Your task to perform on an android device: delete the emails in spam in the gmail app Image 0: 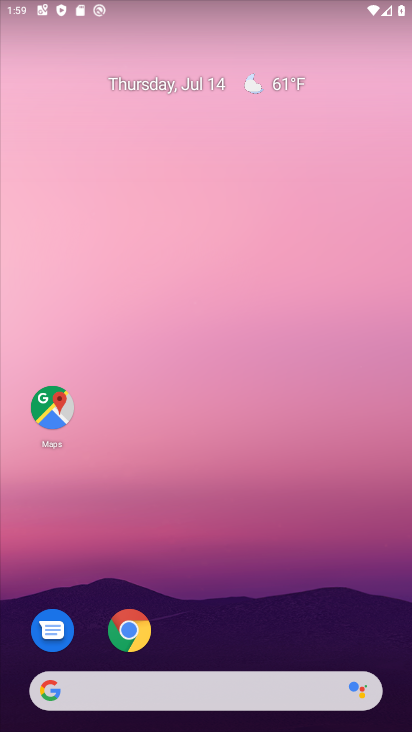
Step 0: drag from (160, 654) to (277, 102)
Your task to perform on an android device: delete the emails in spam in the gmail app Image 1: 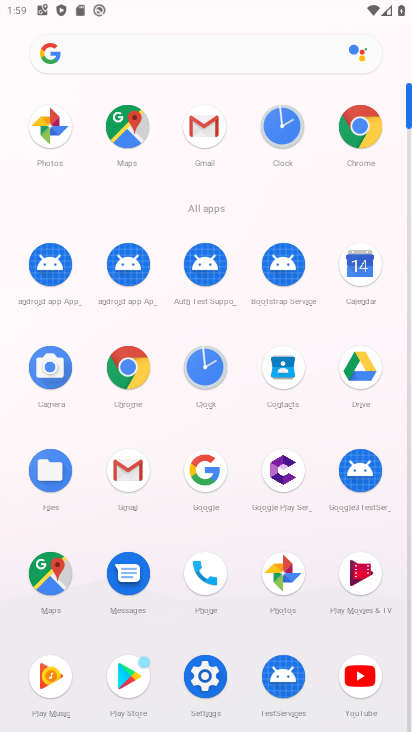
Step 1: click (201, 128)
Your task to perform on an android device: delete the emails in spam in the gmail app Image 2: 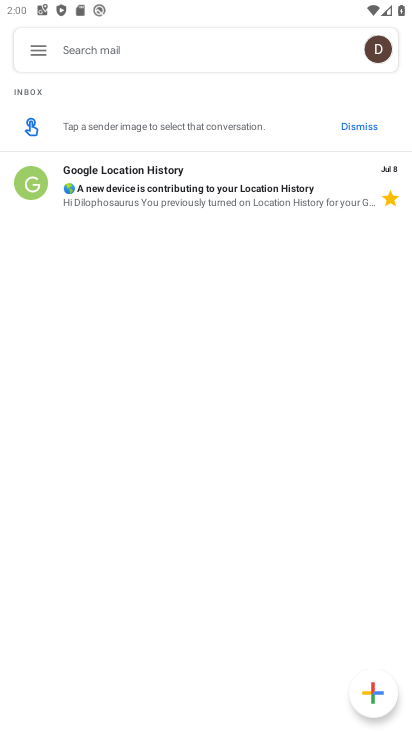
Step 2: click (36, 48)
Your task to perform on an android device: delete the emails in spam in the gmail app Image 3: 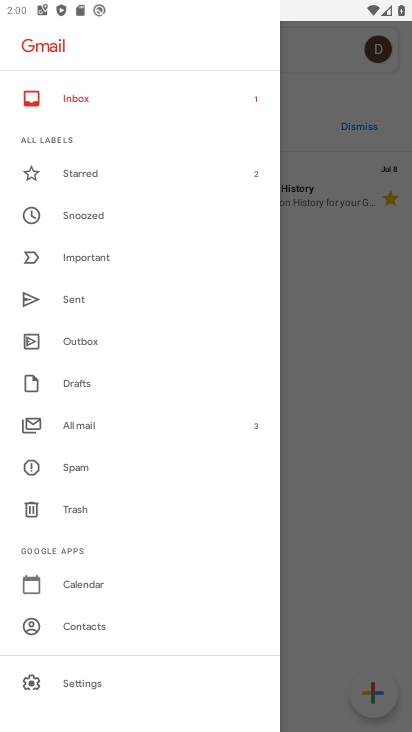
Step 3: click (80, 467)
Your task to perform on an android device: delete the emails in spam in the gmail app Image 4: 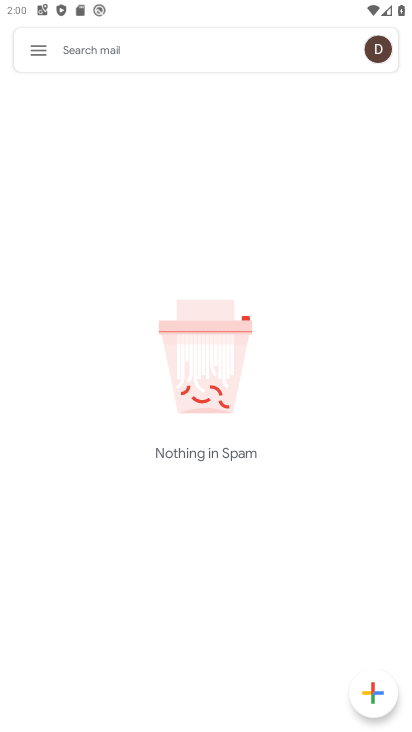
Step 4: task complete